Your task to perform on an android device: turn off location Image 0: 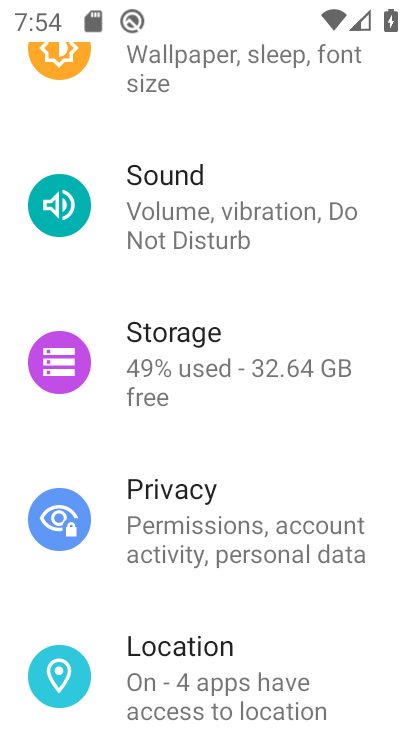
Step 0: click (185, 667)
Your task to perform on an android device: turn off location Image 1: 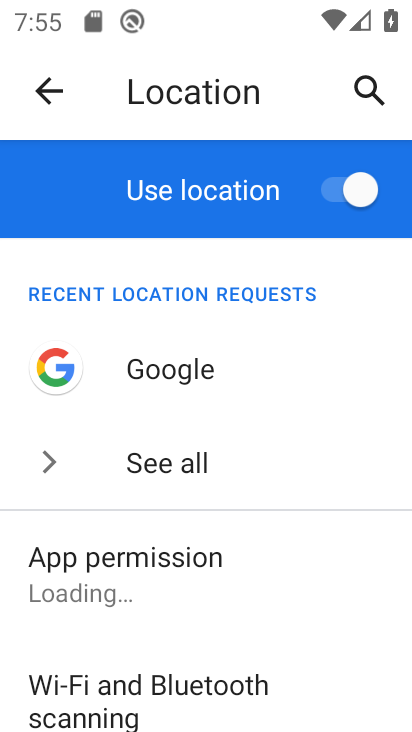
Step 1: click (345, 188)
Your task to perform on an android device: turn off location Image 2: 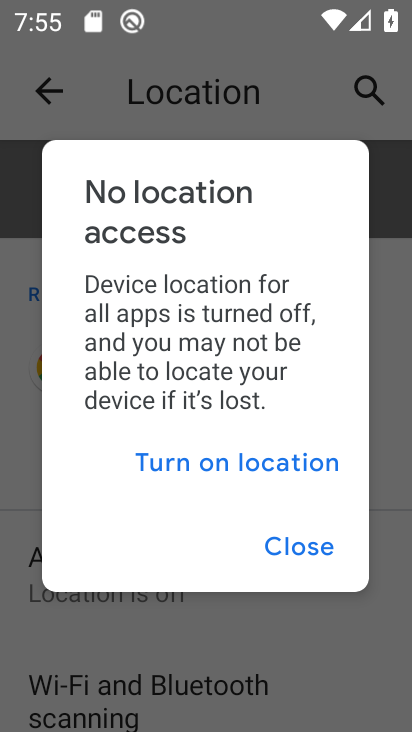
Step 2: click (295, 548)
Your task to perform on an android device: turn off location Image 3: 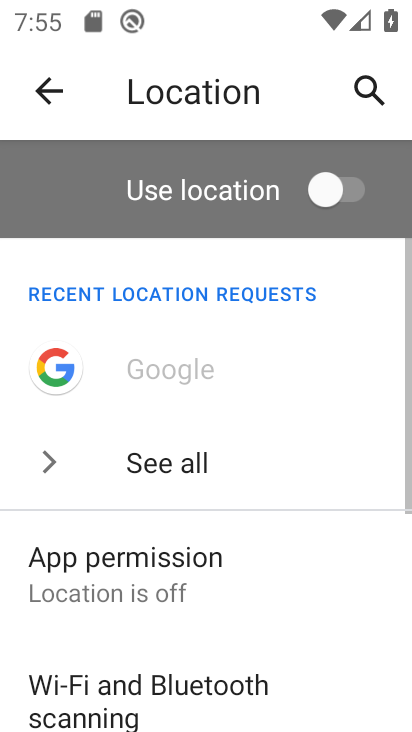
Step 3: task complete